Your task to perform on an android device: turn on the 12-hour format for clock Image 0: 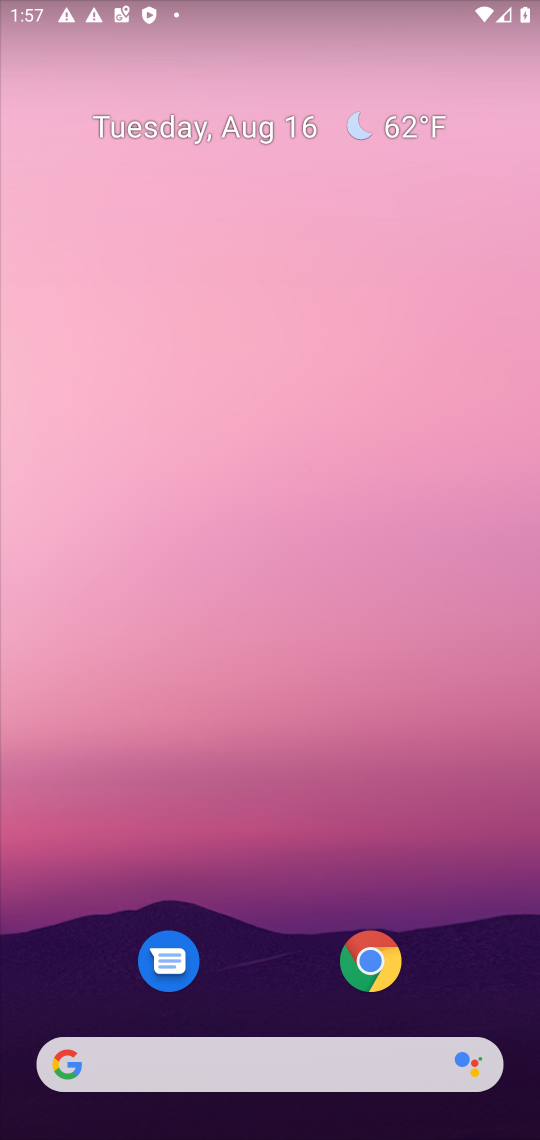
Step 0: drag from (481, 960) to (226, 89)
Your task to perform on an android device: turn on the 12-hour format for clock Image 1: 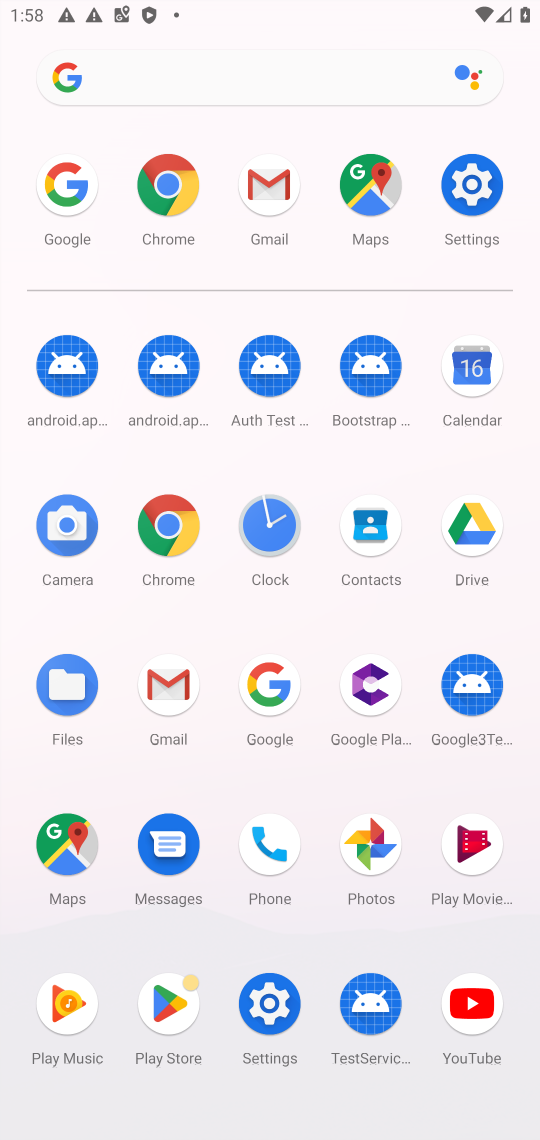
Step 1: click (241, 529)
Your task to perform on an android device: turn on the 12-hour format for clock Image 2: 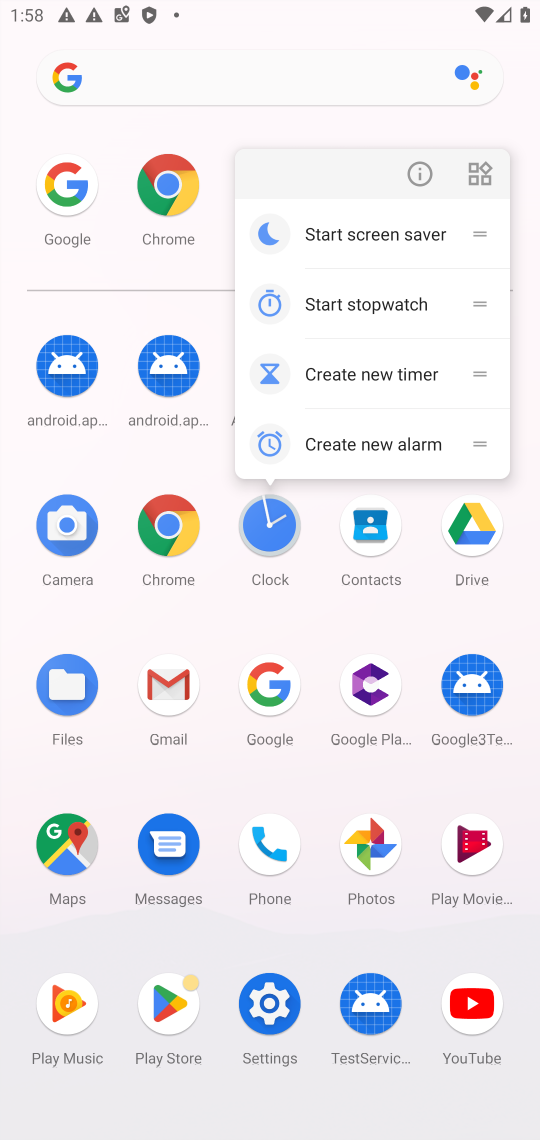
Step 2: click (274, 530)
Your task to perform on an android device: turn on the 12-hour format for clock Image 3: 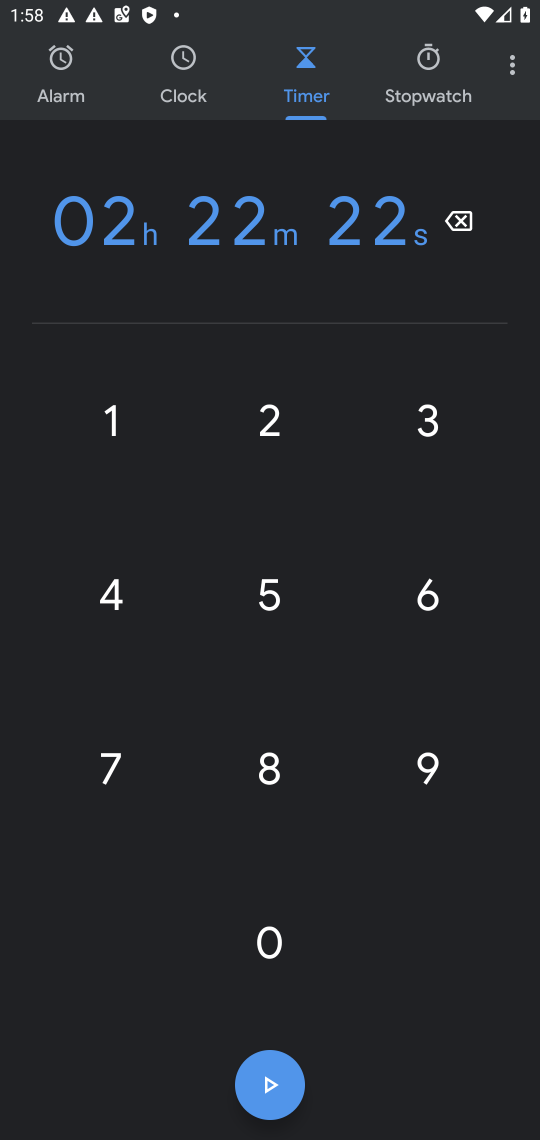
Step 3: click (517, 65)
Your task to perform on an android device: turn on the 12-hour format for clock Image 4: 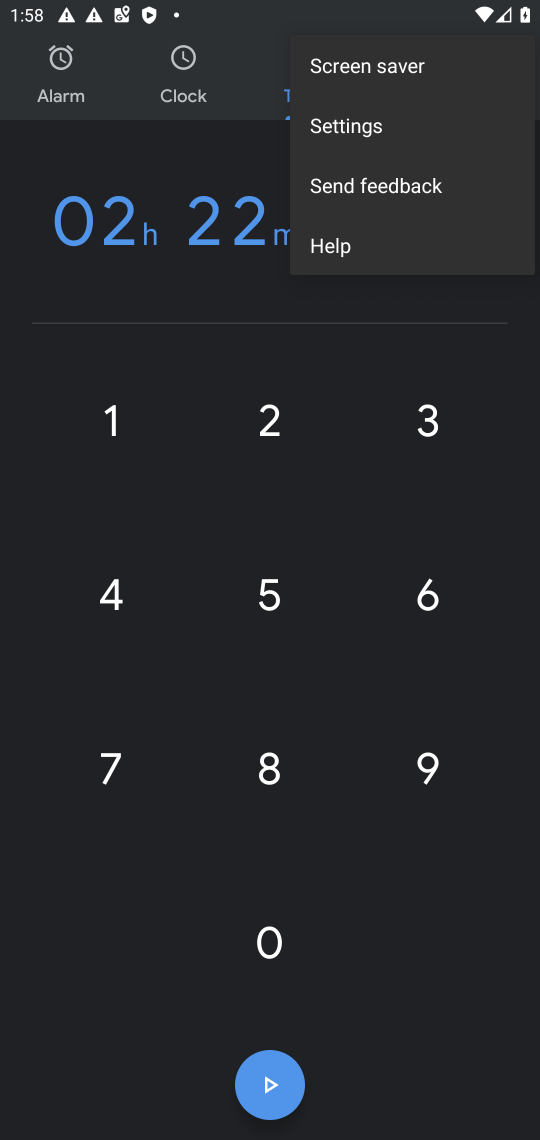
Step 4: click (391, 122)
Your task to perform on an android device: turn on the 12-hour format for clock Image 5: 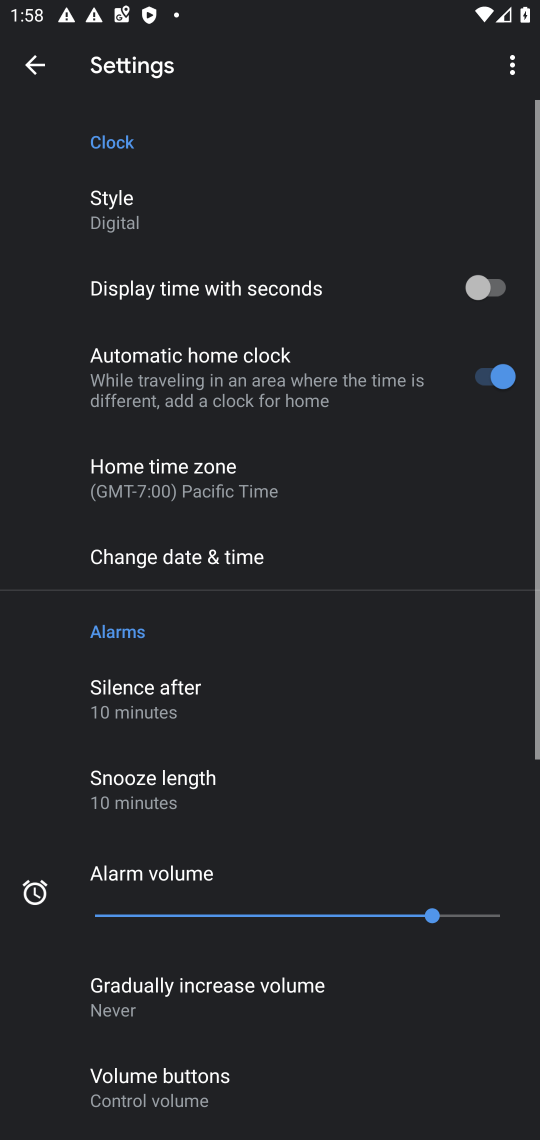
Step 5: click (172, 558)
Your task to perform on an android device: turn on the 12-hour format for clock Image 6: 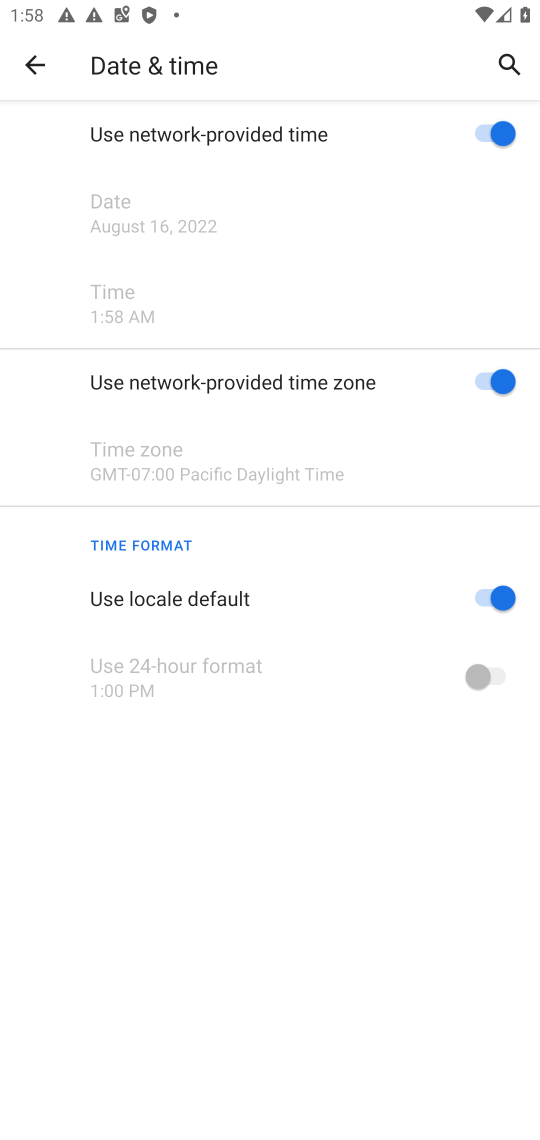
Step 6: task complete